Your task to perform on an android device: Open Reddit.com Image 0: 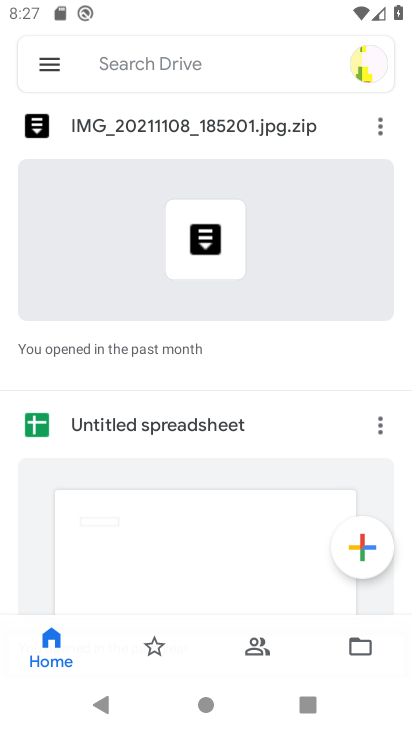
Step 0: press home button
Your task to perform on an android device: Open Reddit.com Image 1: 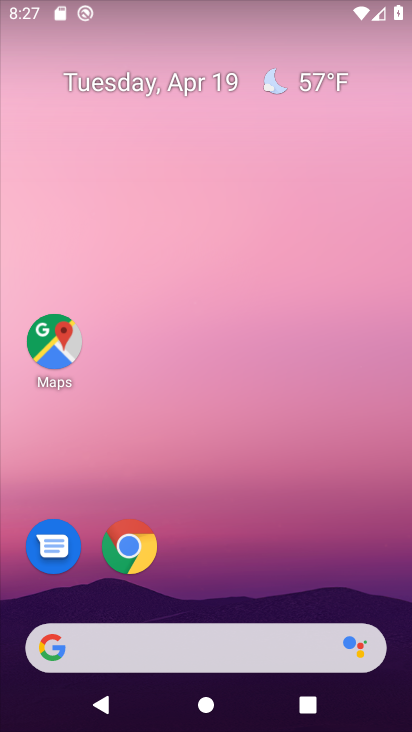
Step 1: click (135, 541)
Your task to perform on an android device: Open Reddit.com Image 2: 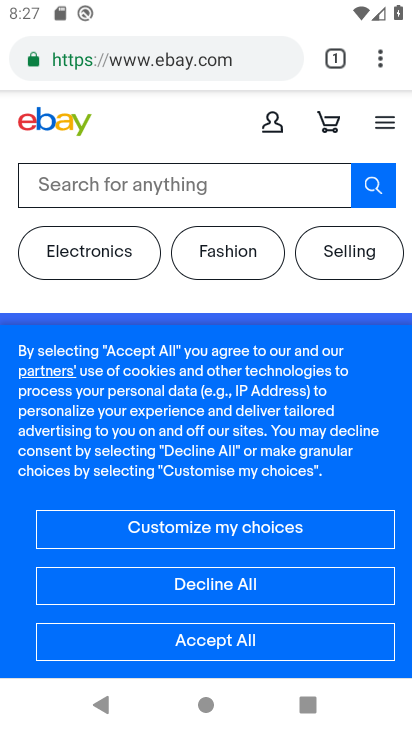
Step 2: click (210, 60)
Your task to perform on an android device: Open Reddit.com Image 3: 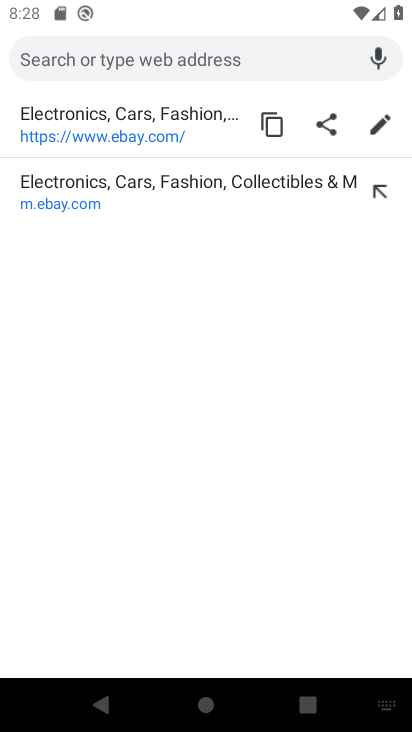
Step 3: type "reddit"
Your task to perform on an android device: Open Reddit.com Image 4: 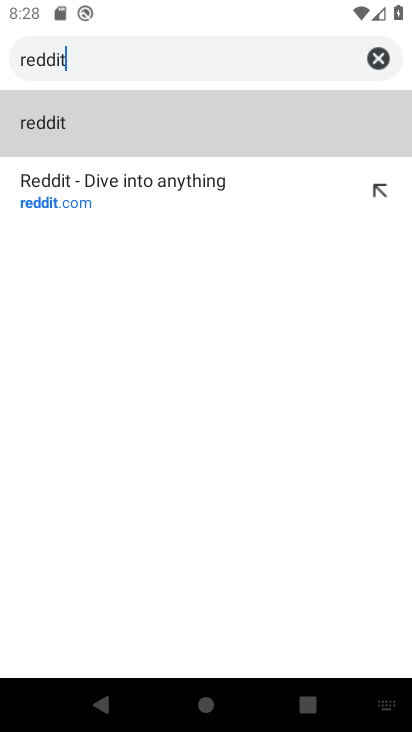
Step 4: click (112, 60)
Your task to perform on an android device: Open Reddit.com Image 5: 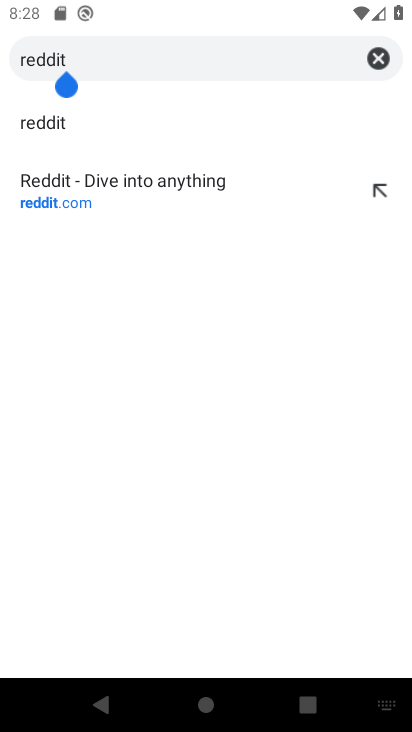
Step 5: type ".com"
Your task to perform on an android device: Open Reddit.com Image 6: 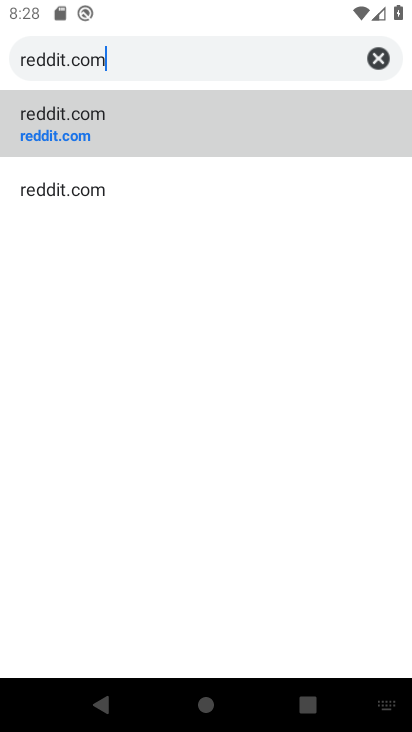
Step 6: click (198, 126)
Your task to perform on an android device: Open Reddit.com Image 7: 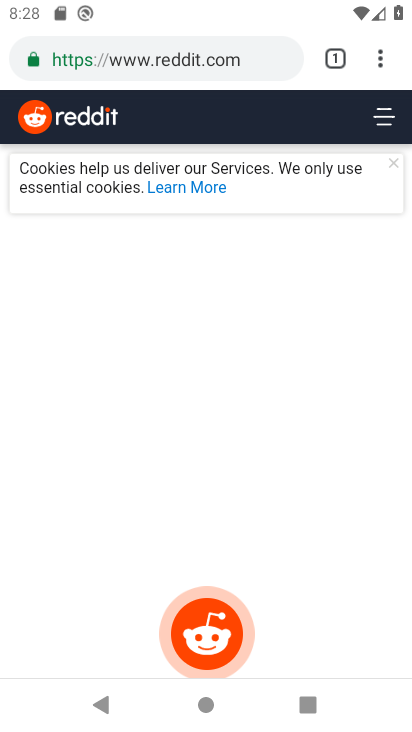
Step 7: task complete